Your task to perform on an android device: change notifications settings Image 0: 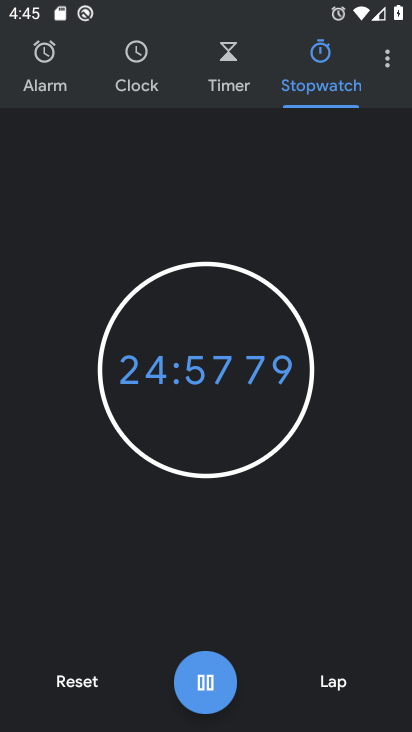
Step 0: press home button
Your task to perform on an android device: change notifications settings Image 1: 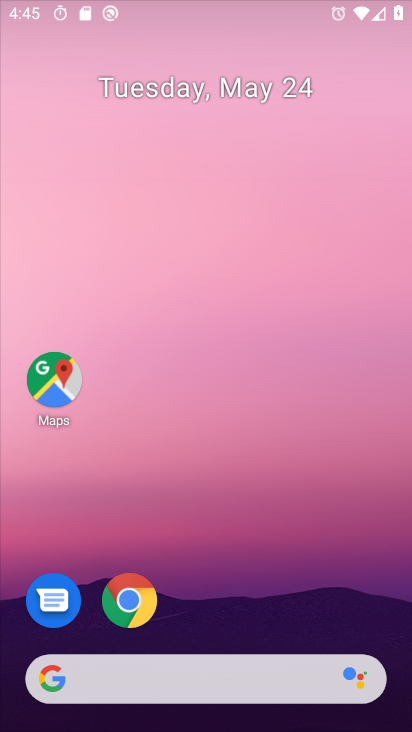
Step 1: drag from (268, 608) to (289, 4)
Your task to perform on an android device: change notifications settings Image 2: 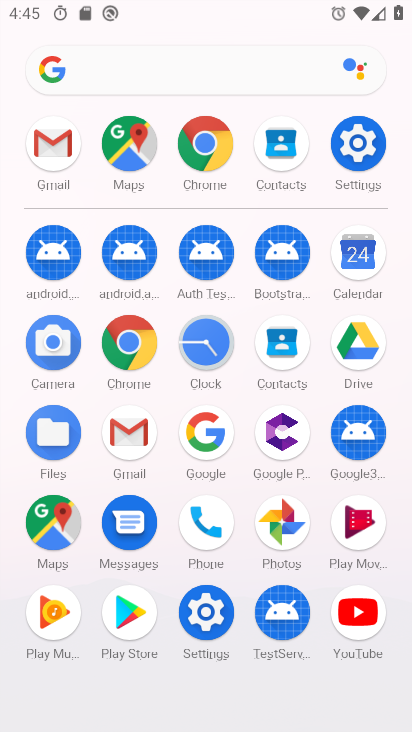
Step 2: click (356, 150)
Your task to perform on an android device: change notifications settings Image 3: 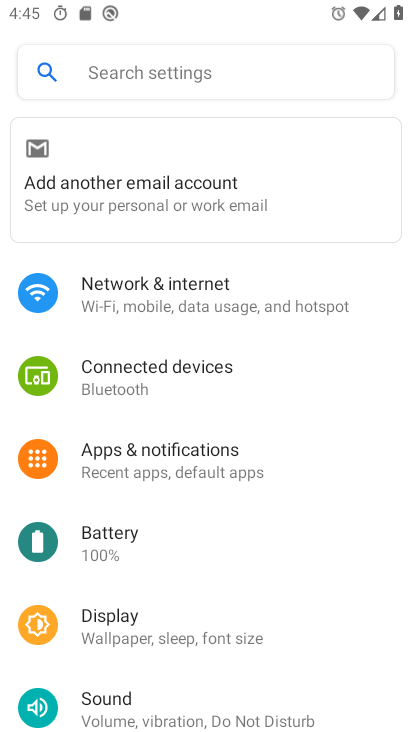
Step 3: click (135, 470)
Your task to perform on an android device: change notifications settings Image 4: 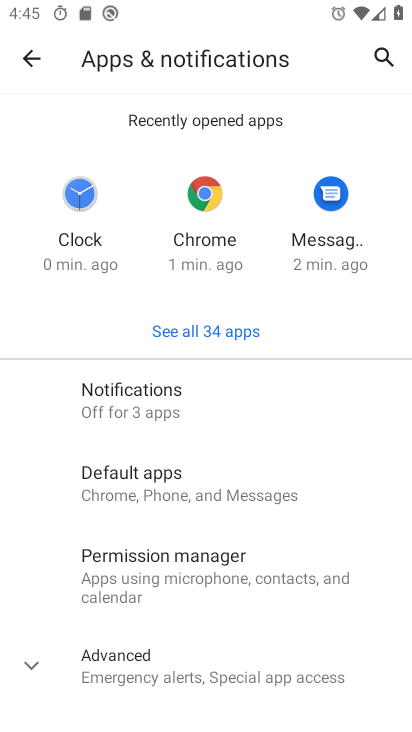
Step 4: click (189, 393)
Your task to perform on an android device: change notifications settings Image 5: 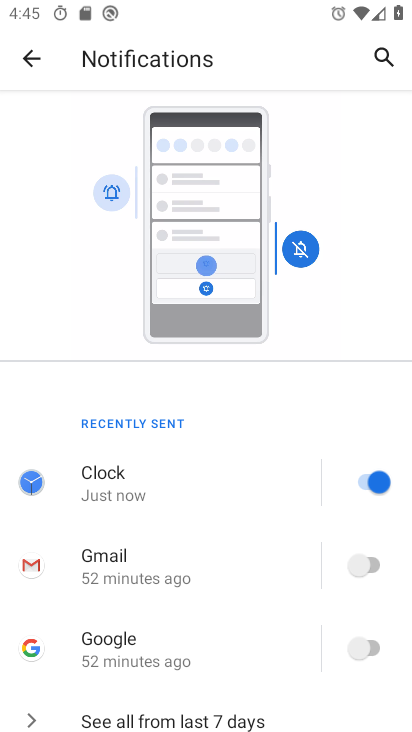
Step 5: click (369, 485)
Your task to perform on an android device: change notifications settings Image 6: 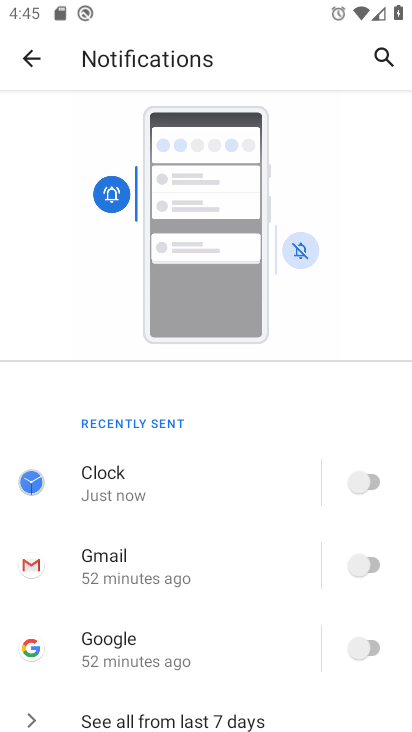
Step 6: task complete